Your task to perform on an android device: open a new tab in the chrome app Image 0: 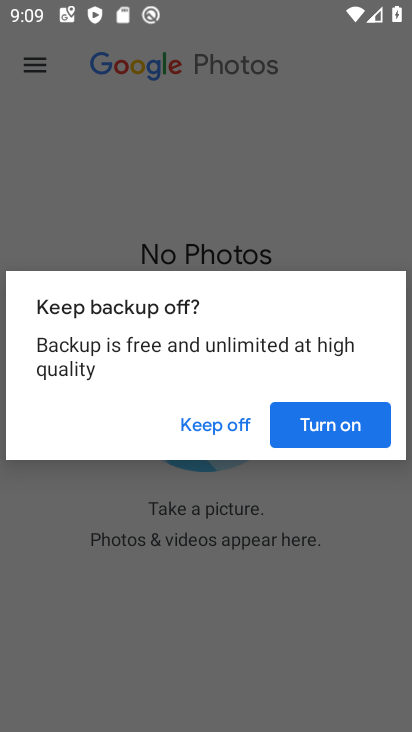
Step 0: press home button
Your task to perform on an android device: open a new tab in the chrome app Image 1: 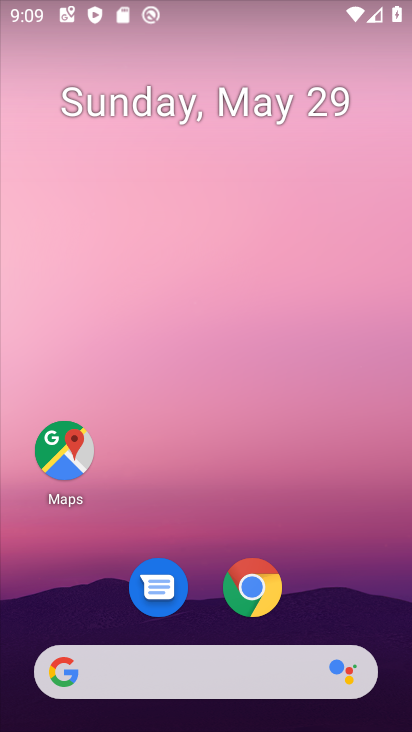
Step 1: click (239, 585)
Your task to perform on an android device: open a new tab in the chrome app Image 2: 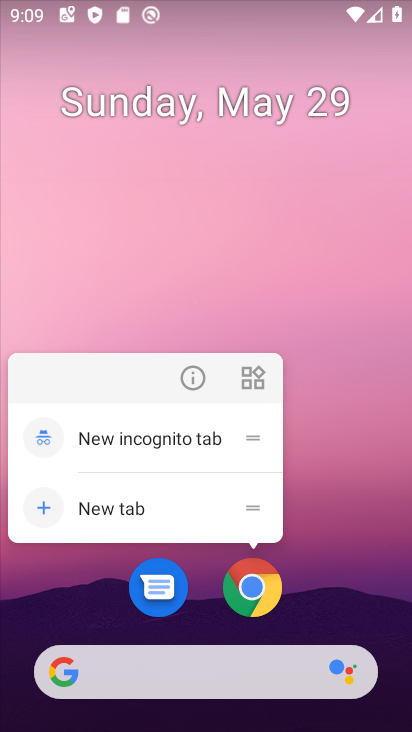
Step 2: click (258, 579)
Your task to perform on an android device: open a new tab in the chrome app Image 3: 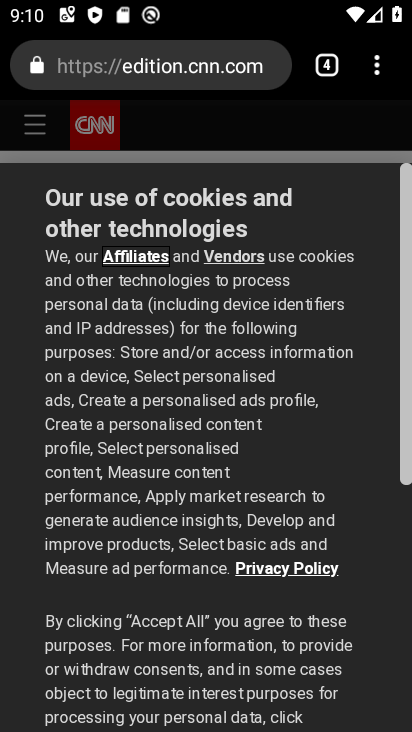
Step 3: click (377, 67)
Your task to perform on an android device: open a new tab in the chrome app Image 4: 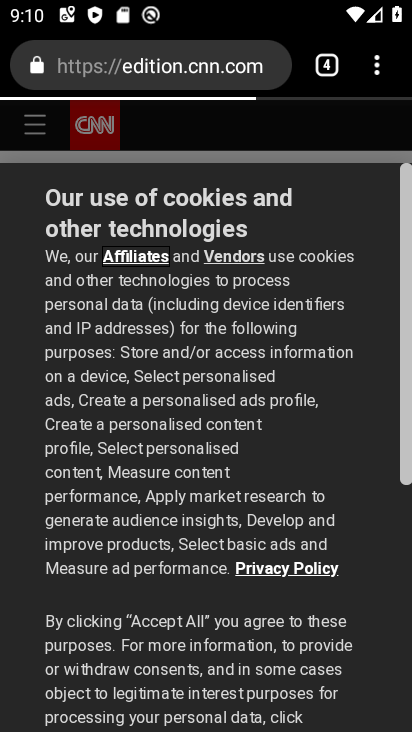
Step 4: task complete